Your task to perform on an android device: turn off location history Image 0: 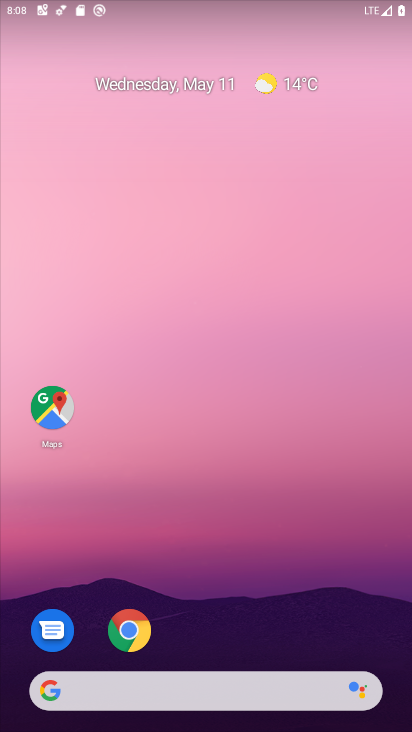
Step 0: drag from (26, 643) to (172, 208)
Your task to perform on an android device: turn off location history Image 1: 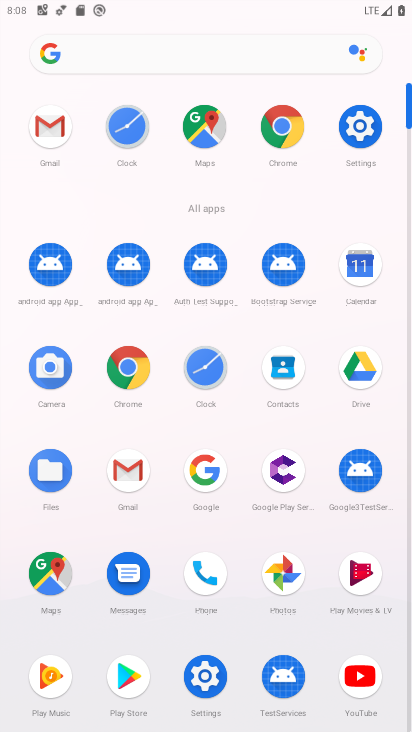
Step 1: click (358, 130)
Your task to perform on an android device: turn off location history Image 2: 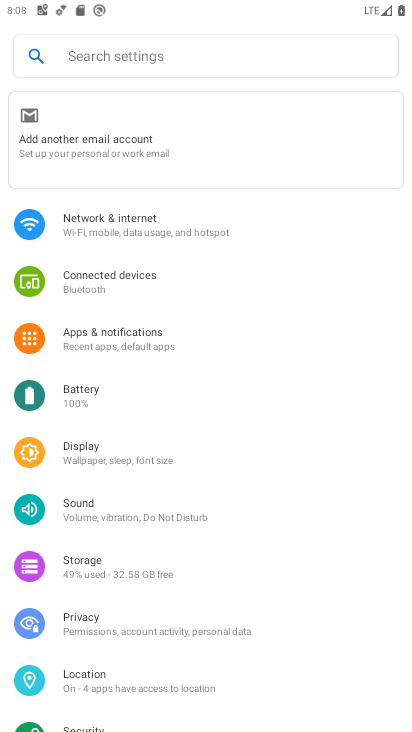
Step 2: click (85, 684)
Your task to perform on an android device: turn off location history Image 3: 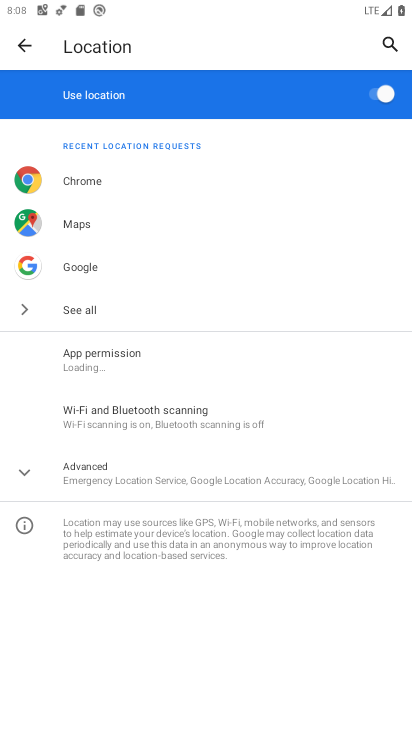
Step 3: click (163, 465)
Your task to perform on an android device: turn off location history Image 4: 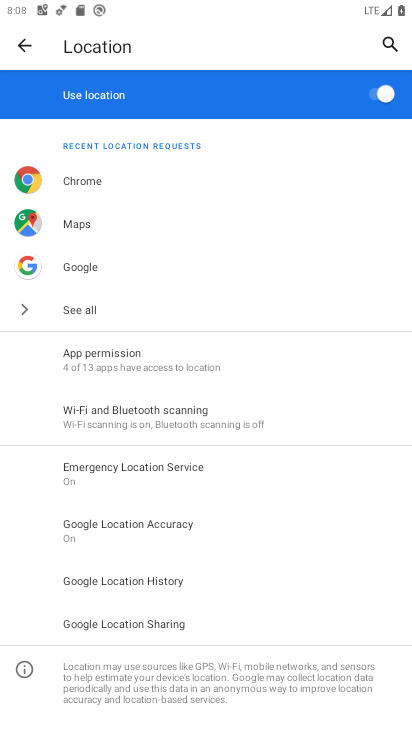
Step 4: click (177, 580)
Your task to perform on an android device: turn off location history Image 5: 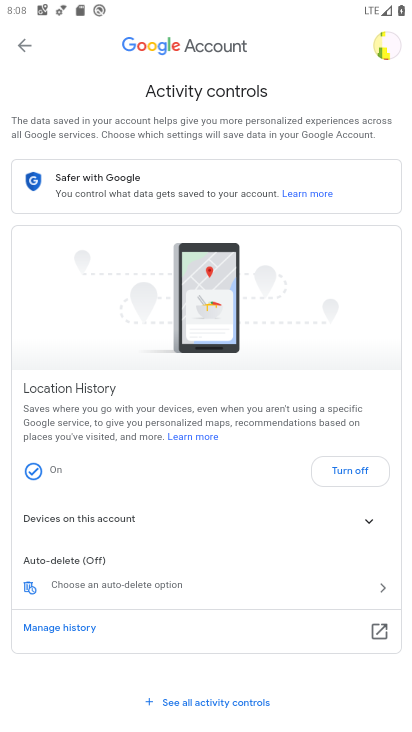
Step 5: click (367, 465)
Your task to perform on an android device: turn off location history Image 6: 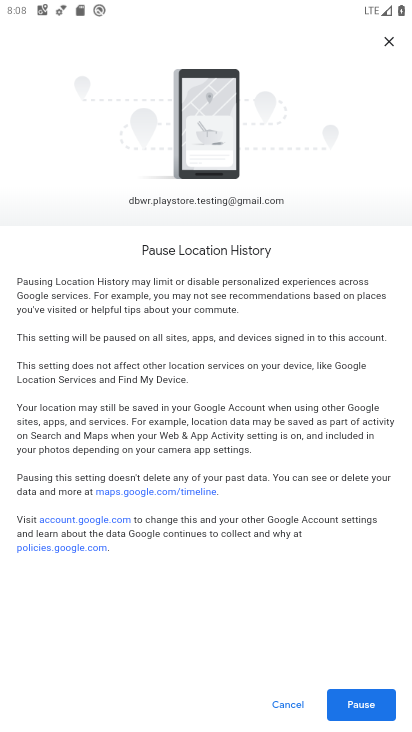
Step 6: click (356, 699)
Your task to perform on an android device: turn off location history Image 7: 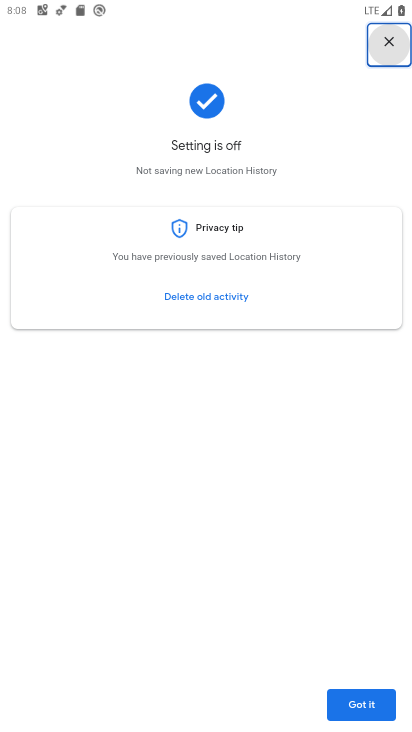
Step 7: click (360, 711)
Your task to perform on an android device: turn off location history Image 8: 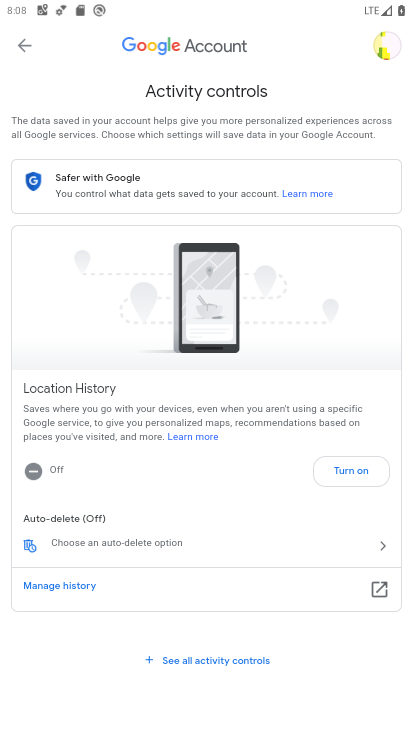
Step 8: task complete